Your task to perform on an android device: Open calendar and show me the first week of next month Image 0: 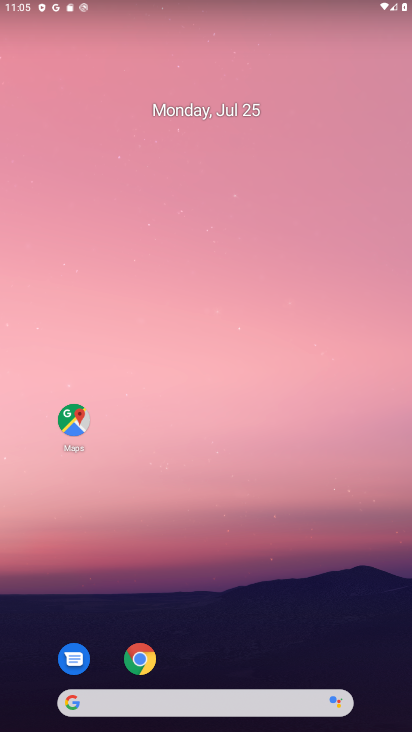
Step 0: drag from (239, 607) to (175, 177)
Your task to perform on an android device: Open calendar and show me the first week of next month Image 1: 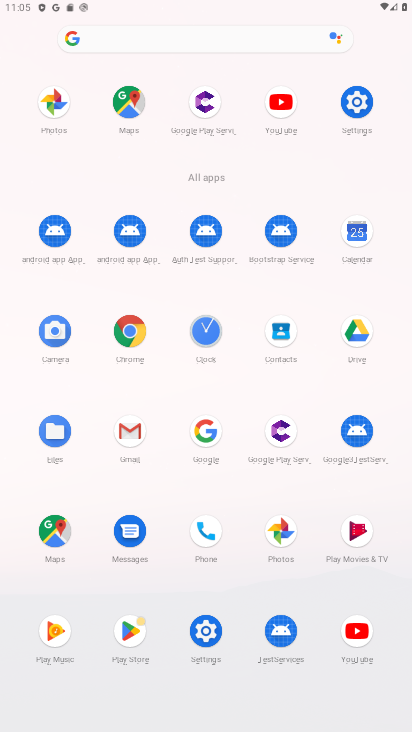
Step 1: click (356, 233)
Your task to perform on an android device: Open calendar and show me the first week of next month Image 2: 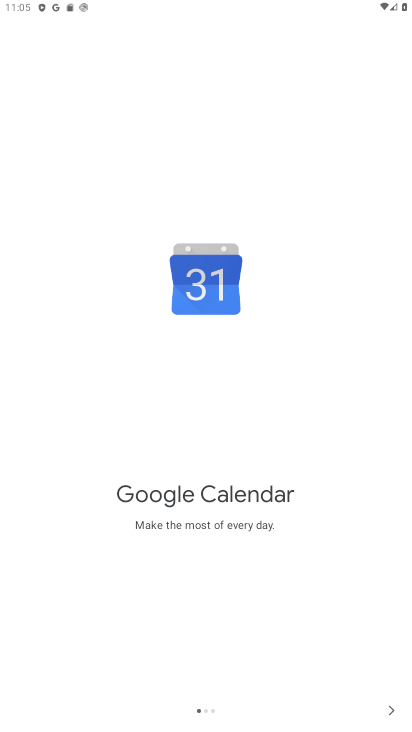
Step 2: click (386, 712)
Your task to perform on an android device: Open calendar and show me the first week of next month Image 3: 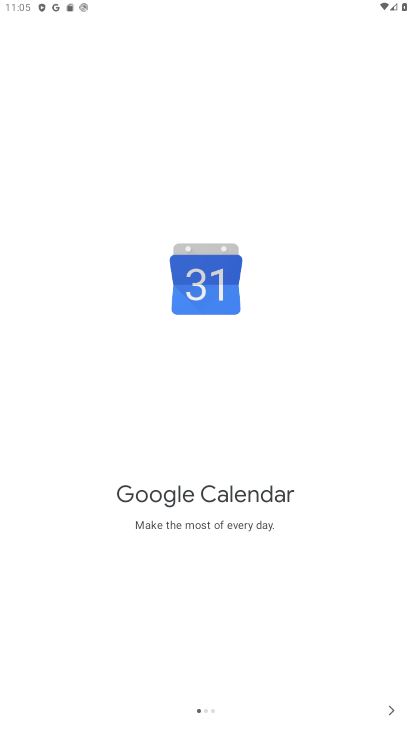
Step 3: click (386, 712)
Your task to perform on an android device: Open calendar and show me the first week of next month Image 4: 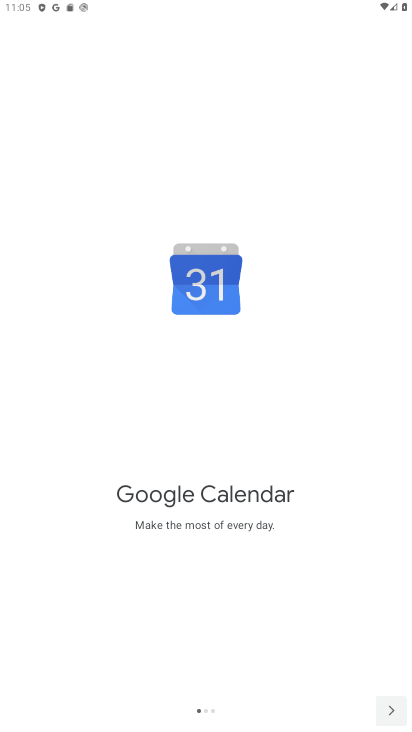
Step 4: click (386, 712)
Your task to perform on an android device: Open calendar and show me the first week of next month Image 5: 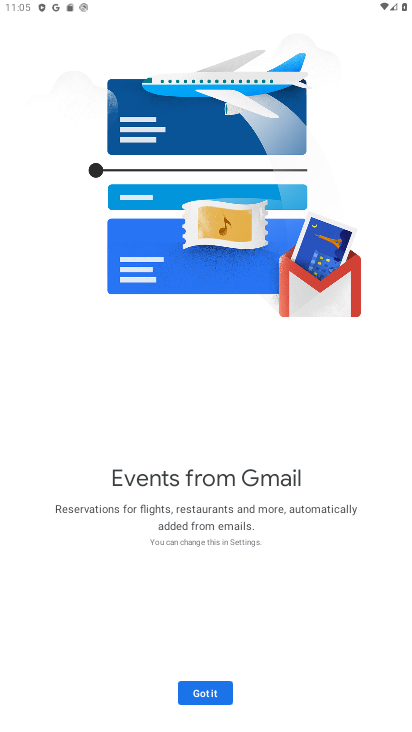
Step 5: click (220, 694)
Your task to perform on an android device: Open calendar and show me the first week of next month Image 6: 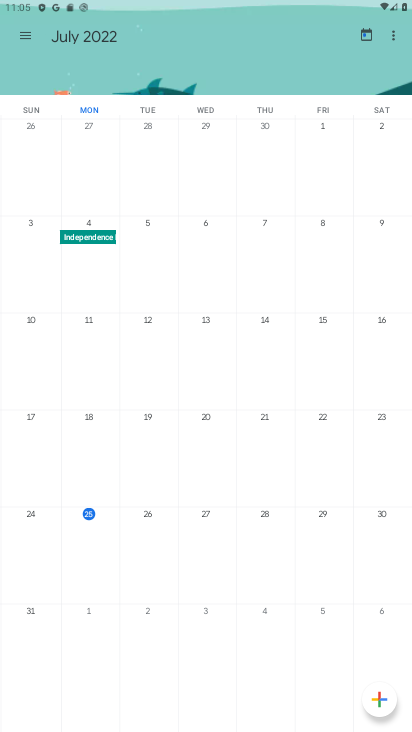
Step 6: click (87, 611)
Your task to perform on an android device: Open calendar and show me the first week of next month Image 7: 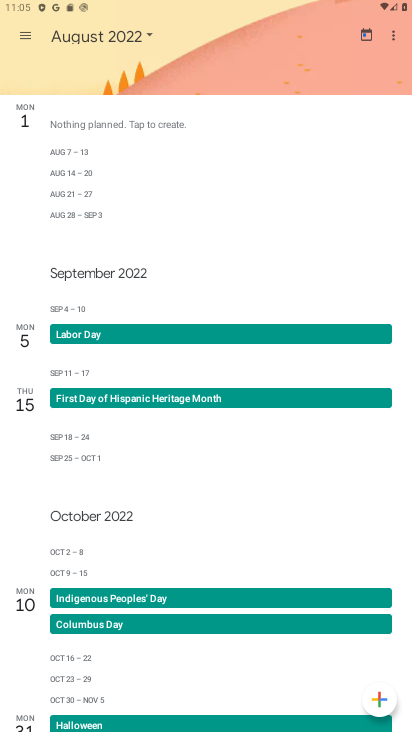
Step 7: click (25, 30)
Your task to perform on an android device: Open calendar and show me the first week of next month Image 8: 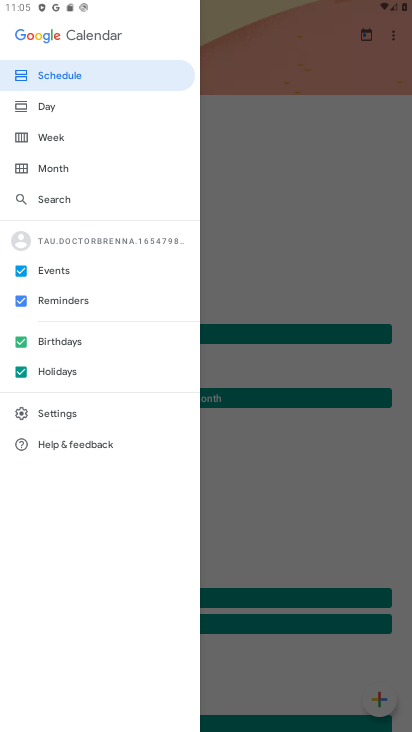
Step 8: click (47, 133)
Your task to perform on an android device: Open calendar and show me the first week of next month Image 9: 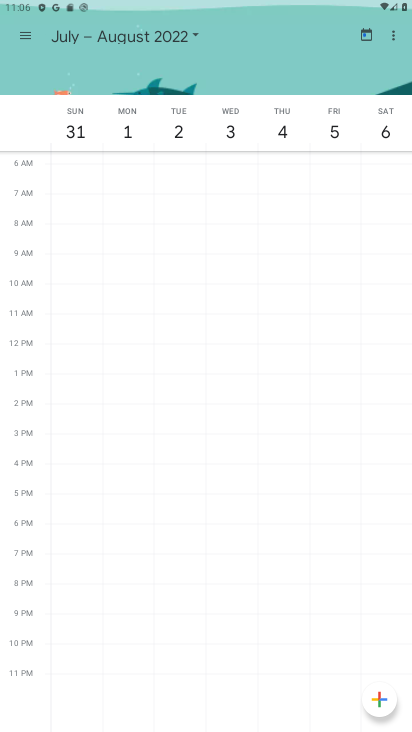
Step 9: task complete